Your task to perform on an android device: delete location history Image 0: 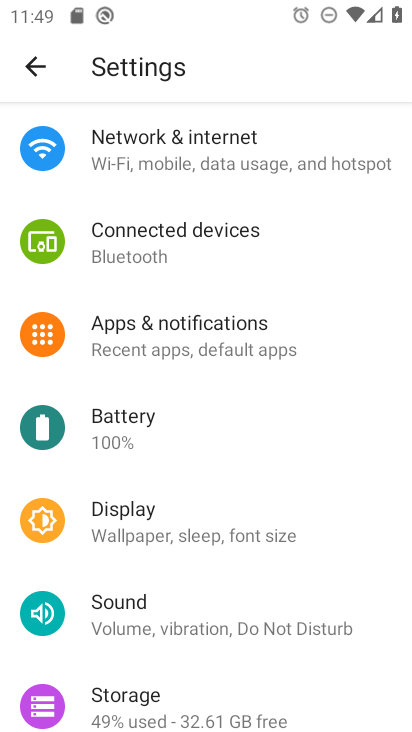
Step 0: press home button
Your task to perform on an android device: delete location history Image 1: 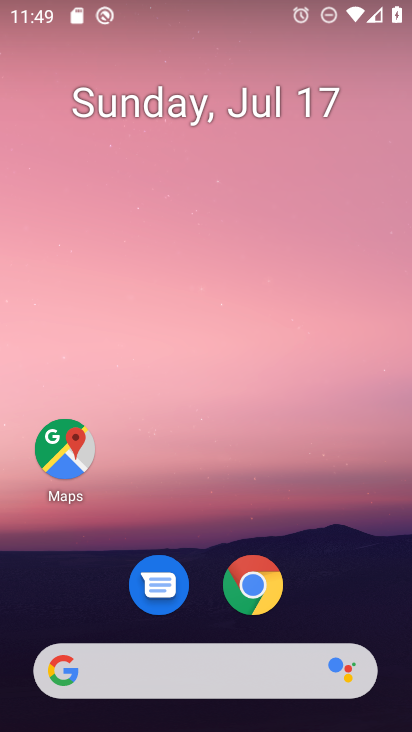
Step 1: click (49, 439)
Your task to perform on an android device: delete location history Image 2: 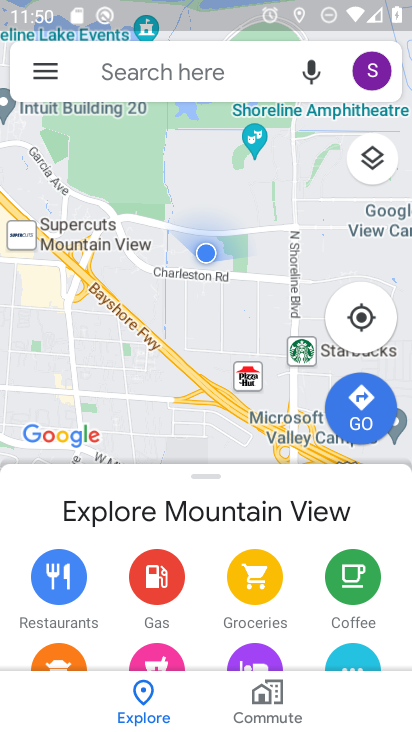
Step 2: click (40, 69)
Your task to perform on an android device: delete location history Image 3: 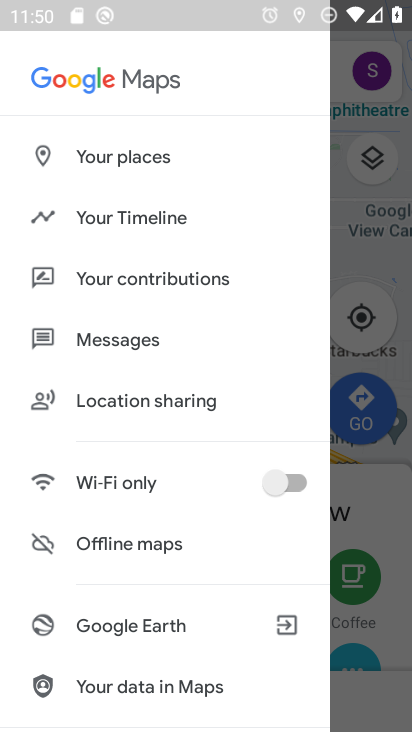
Step 3: click (134, 217)
Your task to perform on an android device: delete location history Image 4: 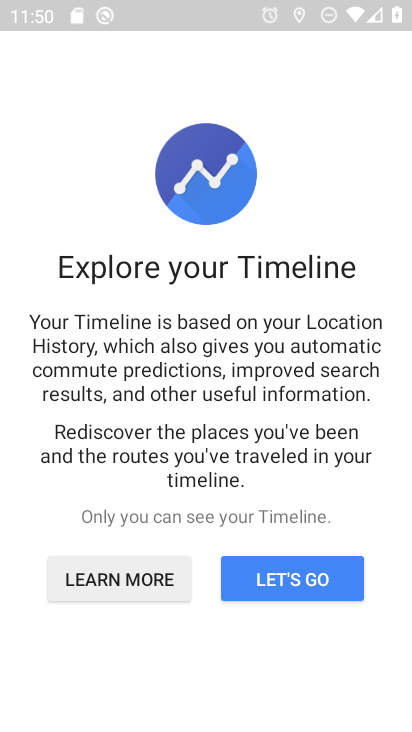
Step 4: click (296, 575)
Your task to perform on an android device: delete location history Image 5: 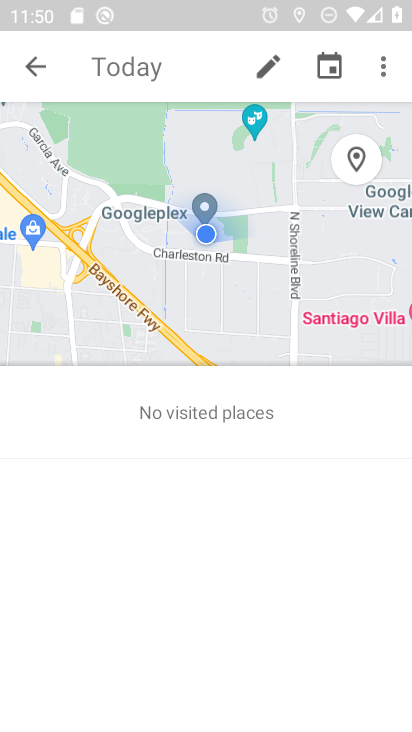
Step 5: click (384, 76)
Your task to perform on an android device: delete location history Image 6: 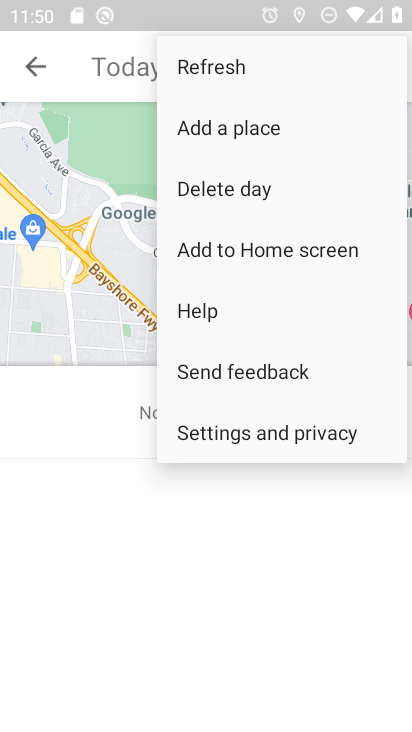
Step 6: click (301, 427)
Your task to perform on an android device: delete location history Image 7: 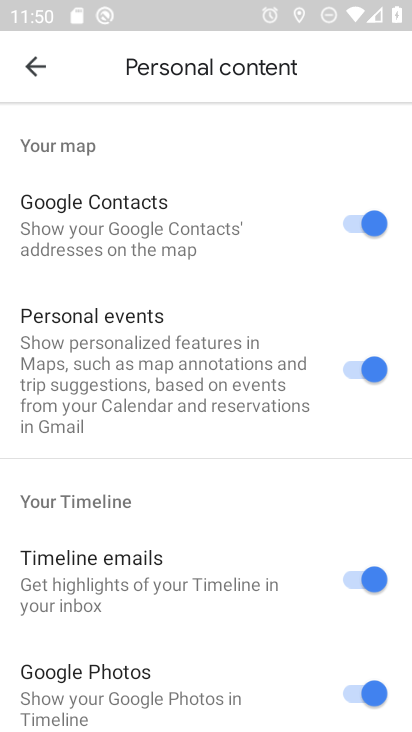
Step 7: drag from (238, 522) to (249, 134)
Your task to perform on an android device: delete location history Image 8: 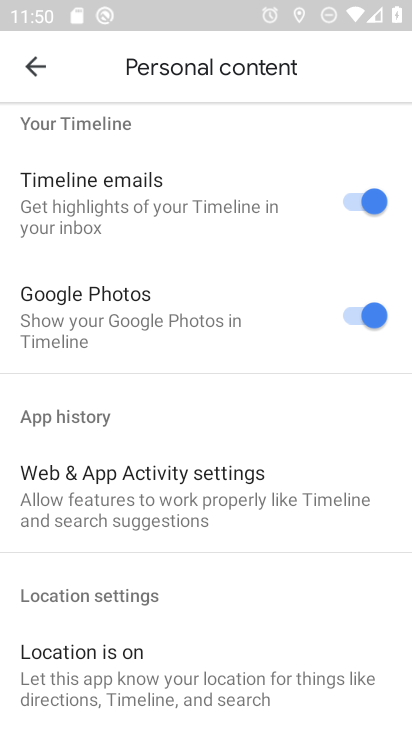
Step 8: drag from (201, 574) to (234, 165)
Your task to perform on an android device: delete location history Image 9: 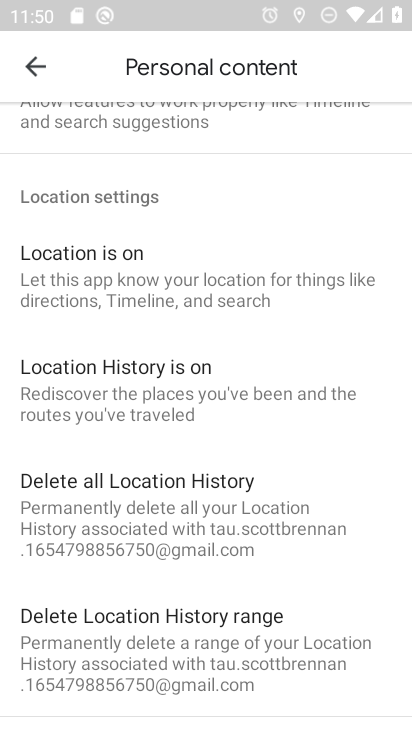
Step 9: click (232, 505)
Your task to perform on an android device: delete location history Image 10: 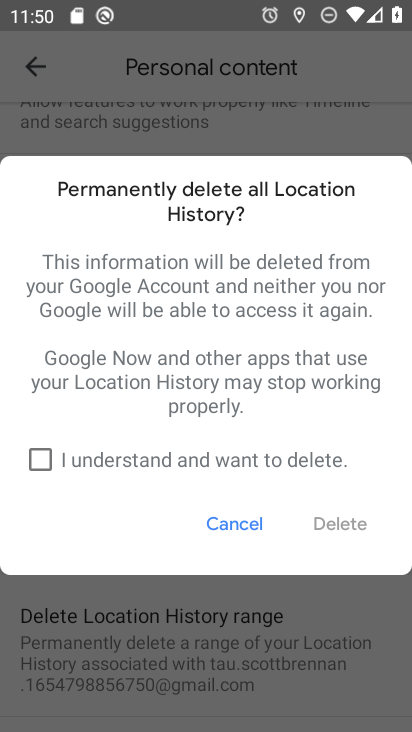
Step 10: click (44, 459)
Your task to perform on an android device: delete location history Image 11: 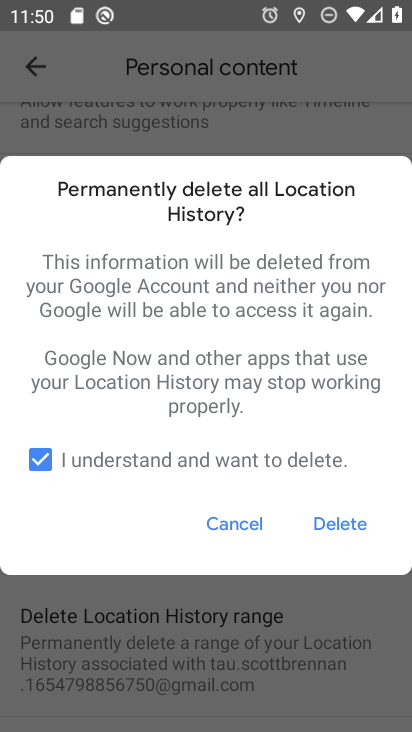
Step 11: click (346, 521)
Your task to perform on an android device: delete location history Image 12: 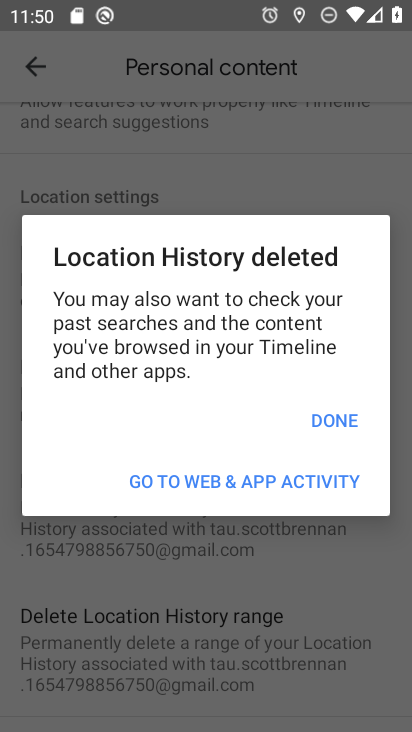
Step 12: click (337, 411)
Your task to perform on an android device: delete location history Image 13: 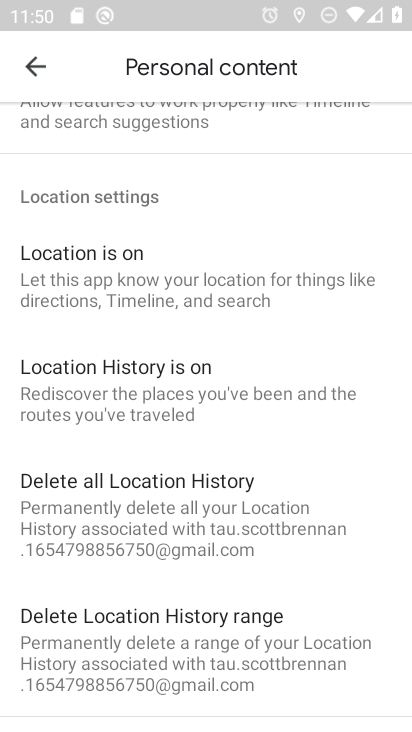
Step 13: task complete